Your task to perform on an android device: turn pop-ups off in chrome Image 0: 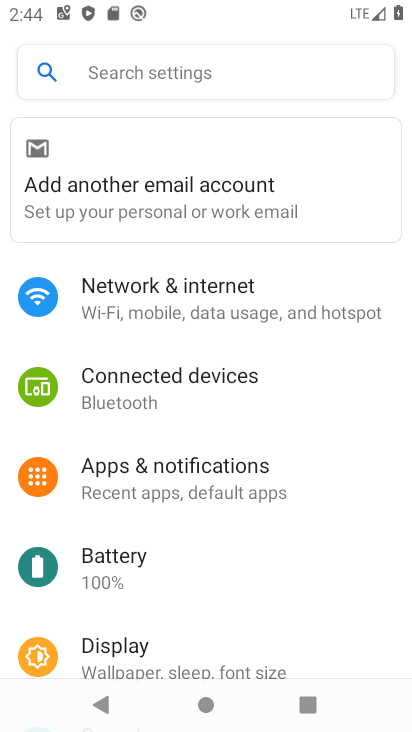
Step 0: press home button
Your task to perform on an android device: turn pop-ups off in chrome Image 1: 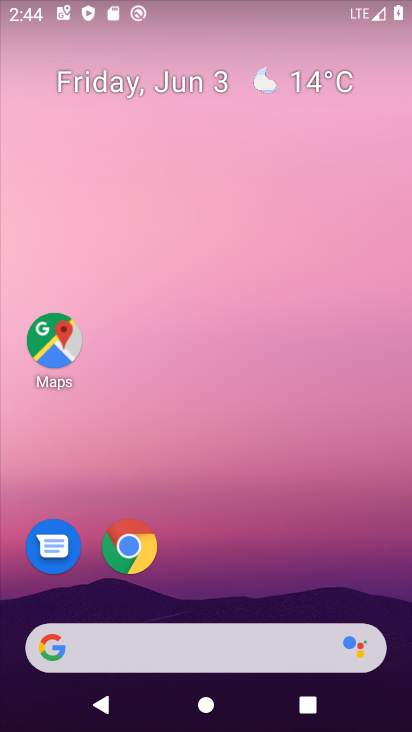
Step 1: drag from (270, 544) to (313, 3)
Your task to perform on an android device: turn pop-ups off in chrome Image 2: 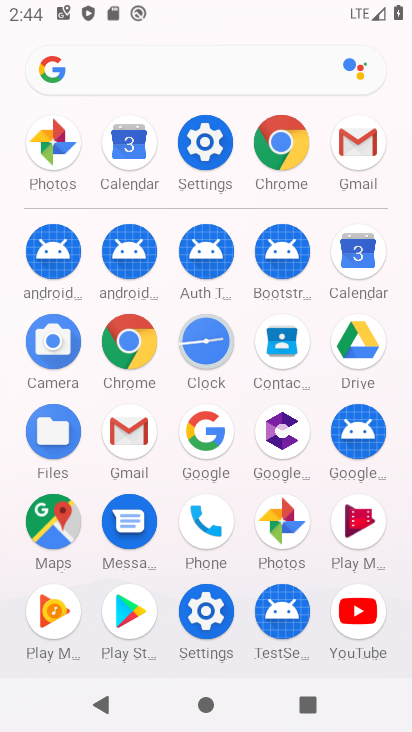
Step 2: click (291, 156)
Your task to perform on an android device: turn pop-ups off in chrome Image 3: 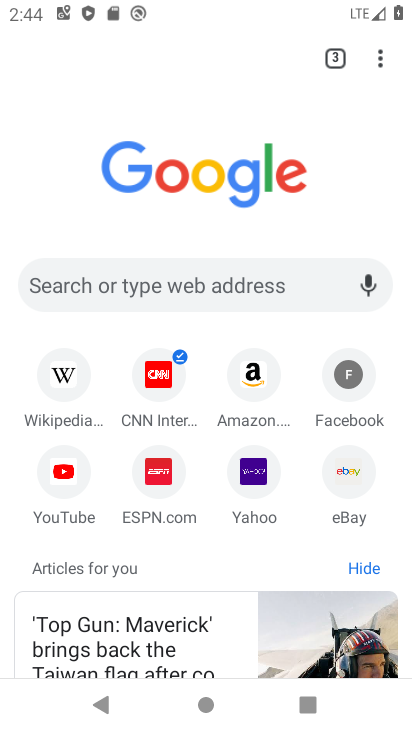
Step 3: drag from (405, 55) to (166, 501)
Your task to perform on an android device: turn pop-ups off in chrome Image 4: 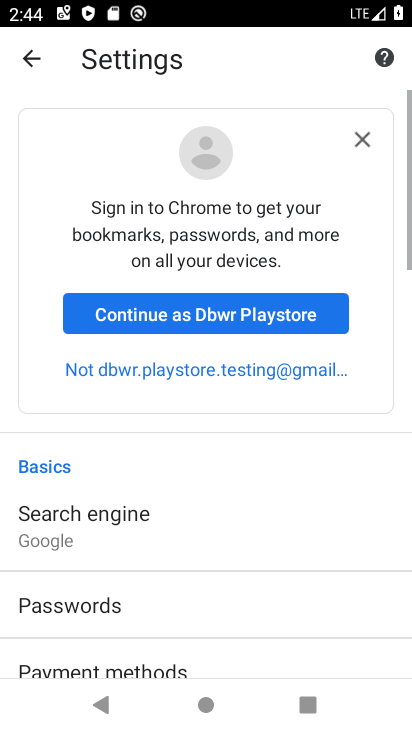
Step 4: drag from (116, 591) to (218, 154)
Your task to perform on an android device: turn pop-ups off in chrome Image 5: 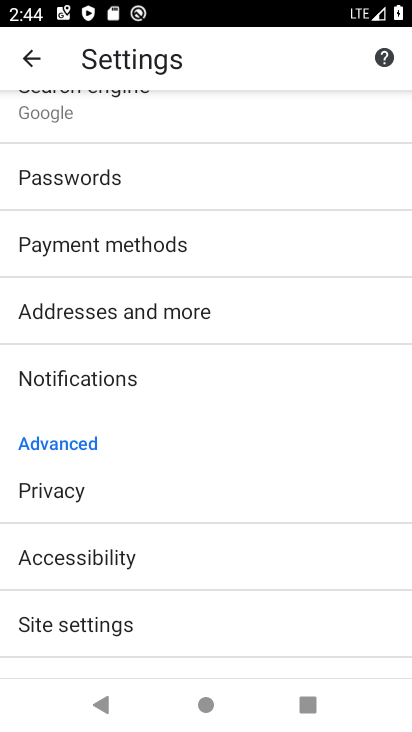
Step 5: click (128, 633)
Your task to perform on an android device: turn pop-ups off in chrome Image 6: 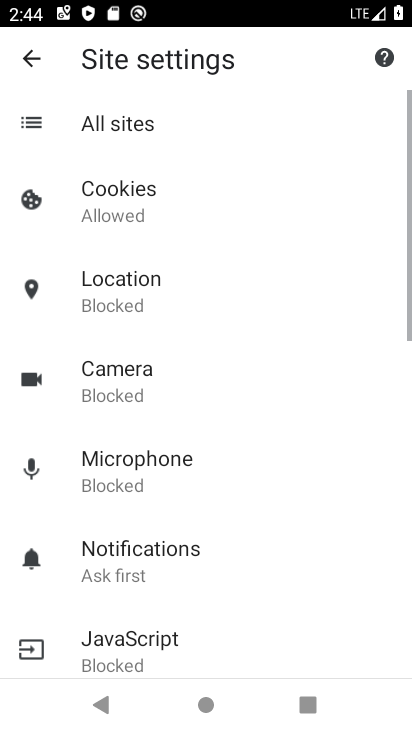
Step 6: drag from (132, 611) to (193, 236)
Your task to perform on an android device: turn pop-ups off in chrome Image 7: 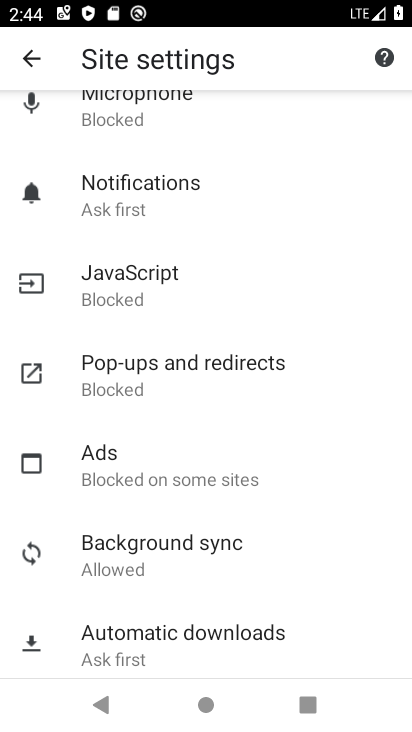
Step 7: click (163, 386)
Your task to perform on an android device: turn pop-ups off in chrome Image 8: 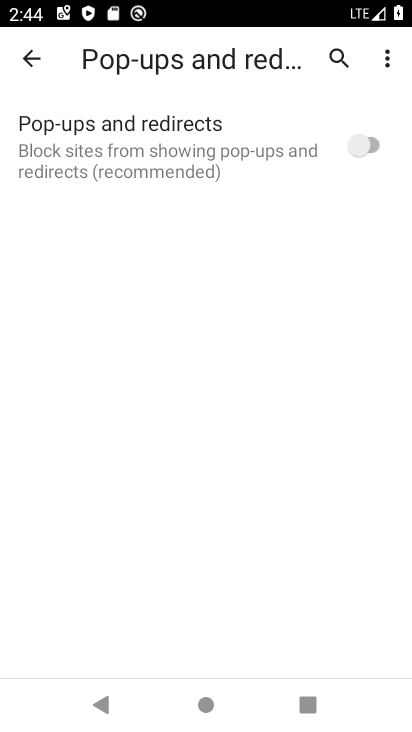
Step 8: task complete